Your task to perform on an android device: Go to network settings Image 0: 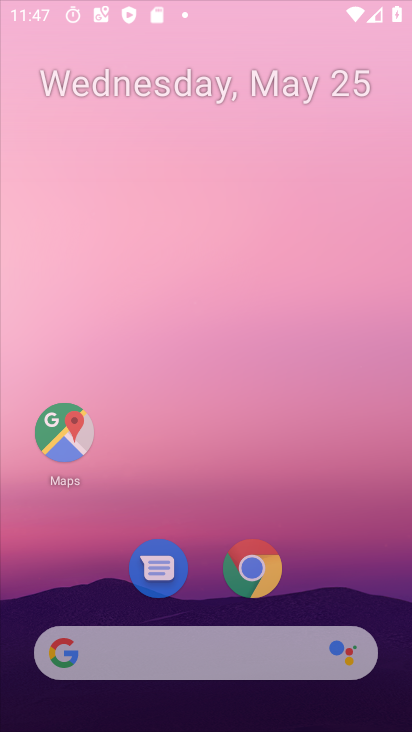
Step 0: press home button
Your task to perform on an android device: Go to network settings Image 1: 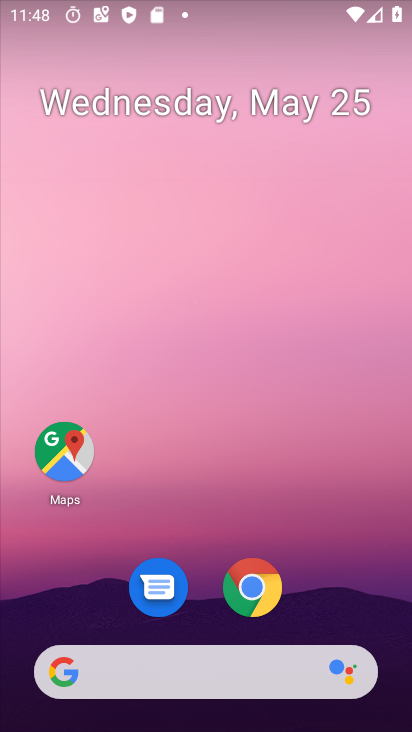
Step 1: drag from (268, 703) to (294, 178)
Your task to perform on an android device: Go to network settings Image 2: 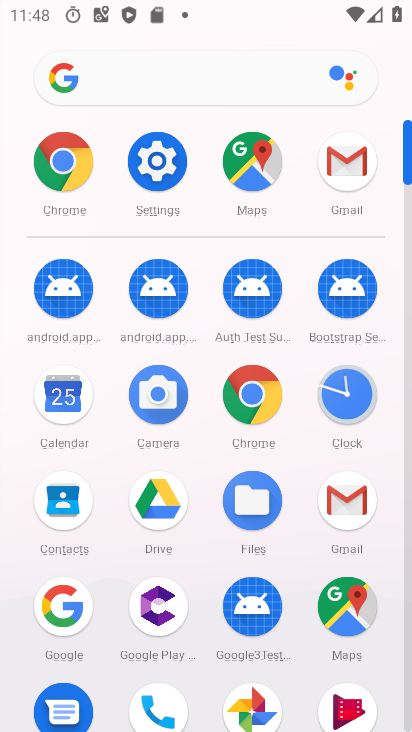
Step 2: click (154, 185)
Your task to perform on an android device: Go to network settings Image 3: 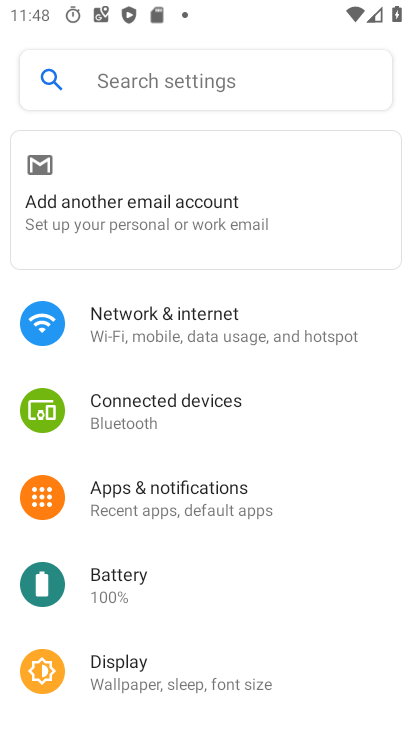
Step 3: click (210, 327)
Your task to perform on an android device: Go to network settings Image 4: 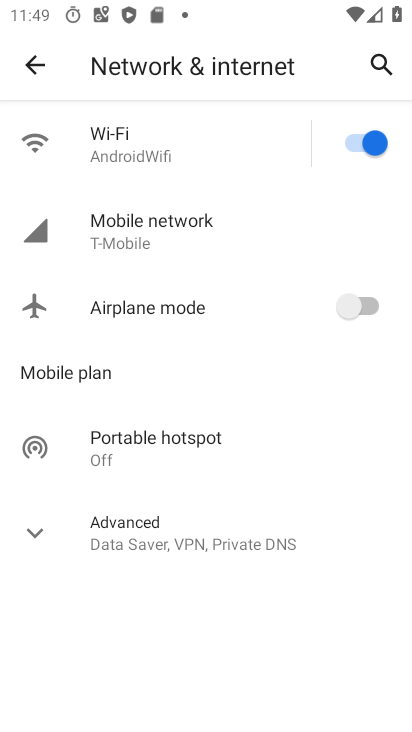
Step 4: task complete